Your task to perform on an android device: change the clock display to analog Image 0: 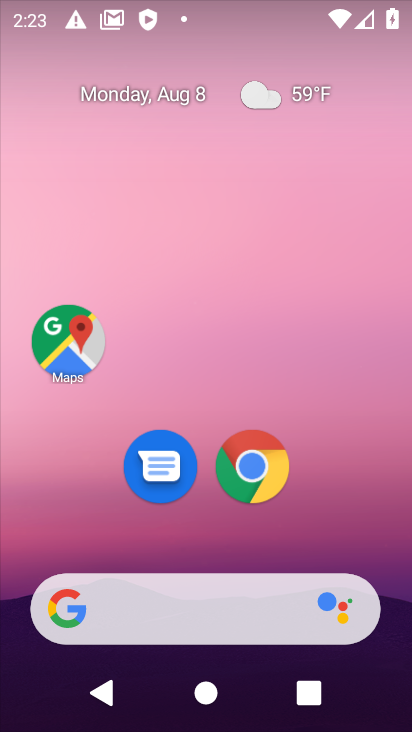
Step 0: drag from (193, 597) to (109, 40)
Your task to perform on an android device: change the clock display to analog Image 1: 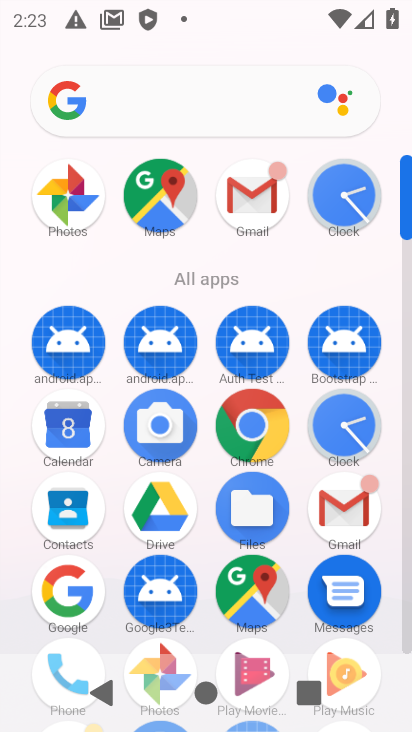
Step 1: click (333, 201)
Your task to perform on an android device: change the clock display to analog Image 2: 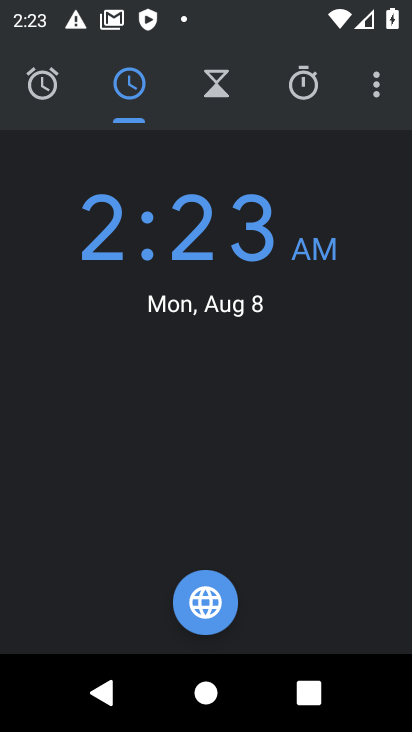
Step 2: click (377, 96)
Your task to perform on an android device: change the clock display to analog Image 3: 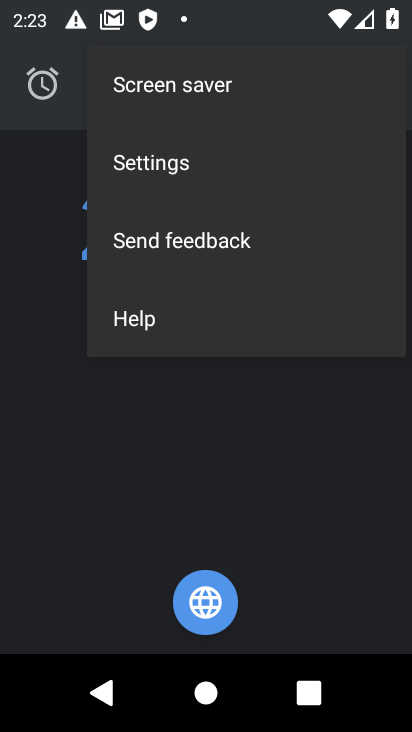
Step 3: click (195, 163)
Your task to perform on an android device: change the clock display to analog Image 4: 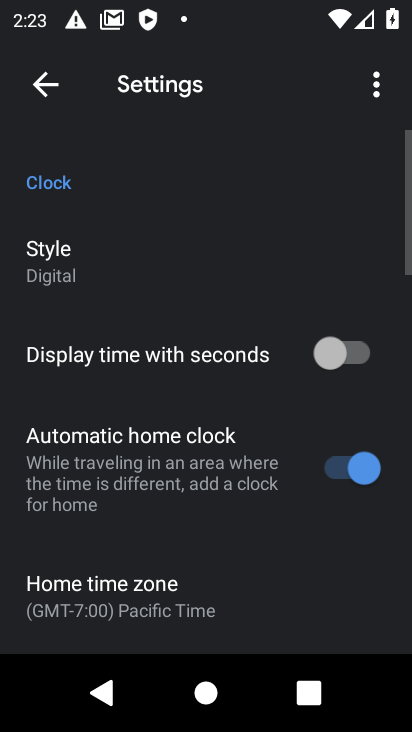
Step 4: click (105, 260)
Your task to perform on an android device: change the clock display to analog Image 5: 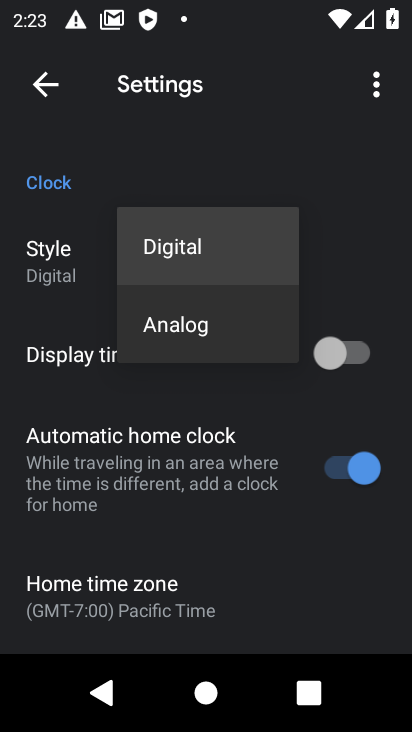
Step 5: click (186, 344)
Your task to perform on an android device: change the clock display to analog Image 6: 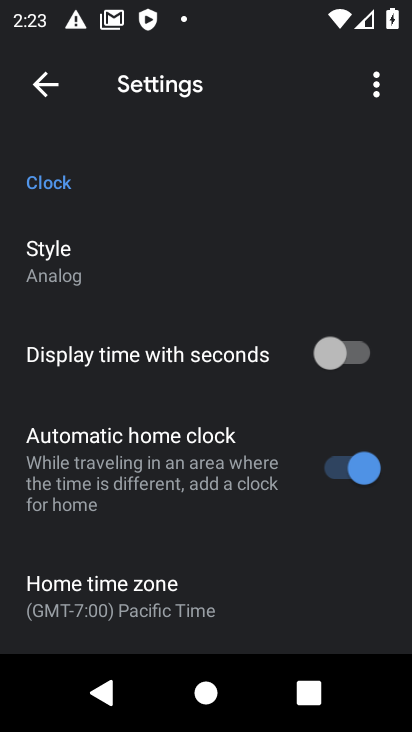
Step 6: task complete